Your task to perform on an android device: See recent photos Image 0: 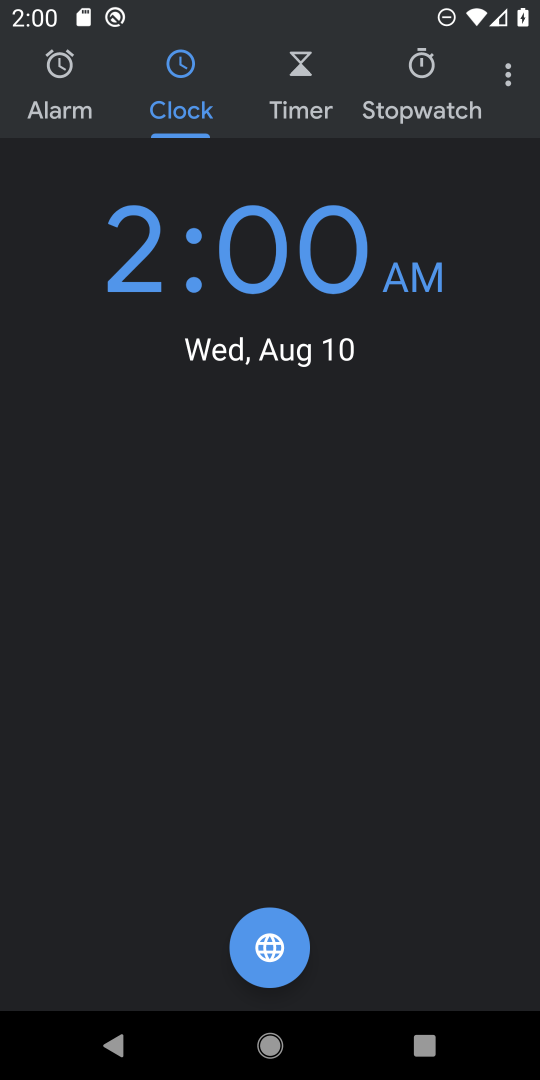
Step 0: task complete